Your task to perform on an android device: open app "Messages" Image 0: 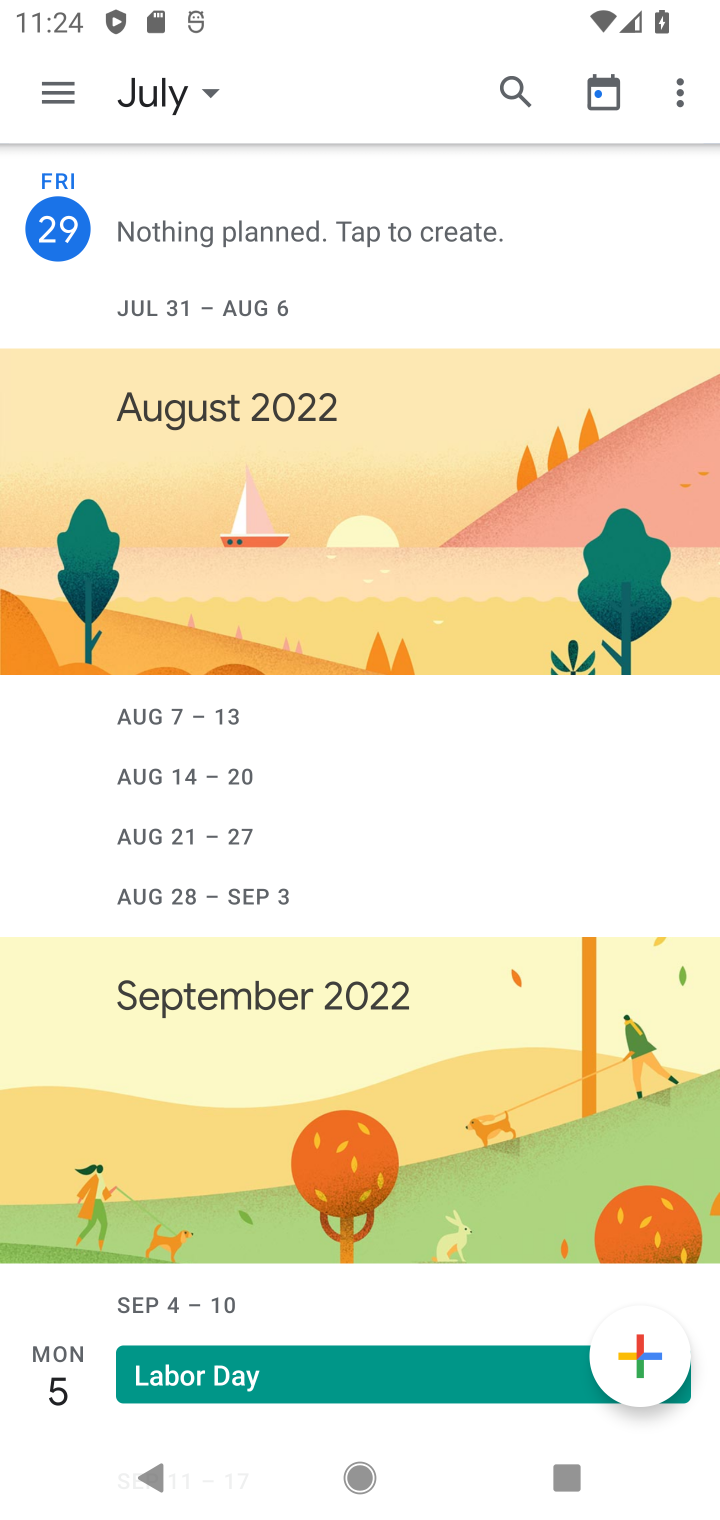
Step 0: press home button
Your task to perform on an android device: open app "Messages" Image 1: 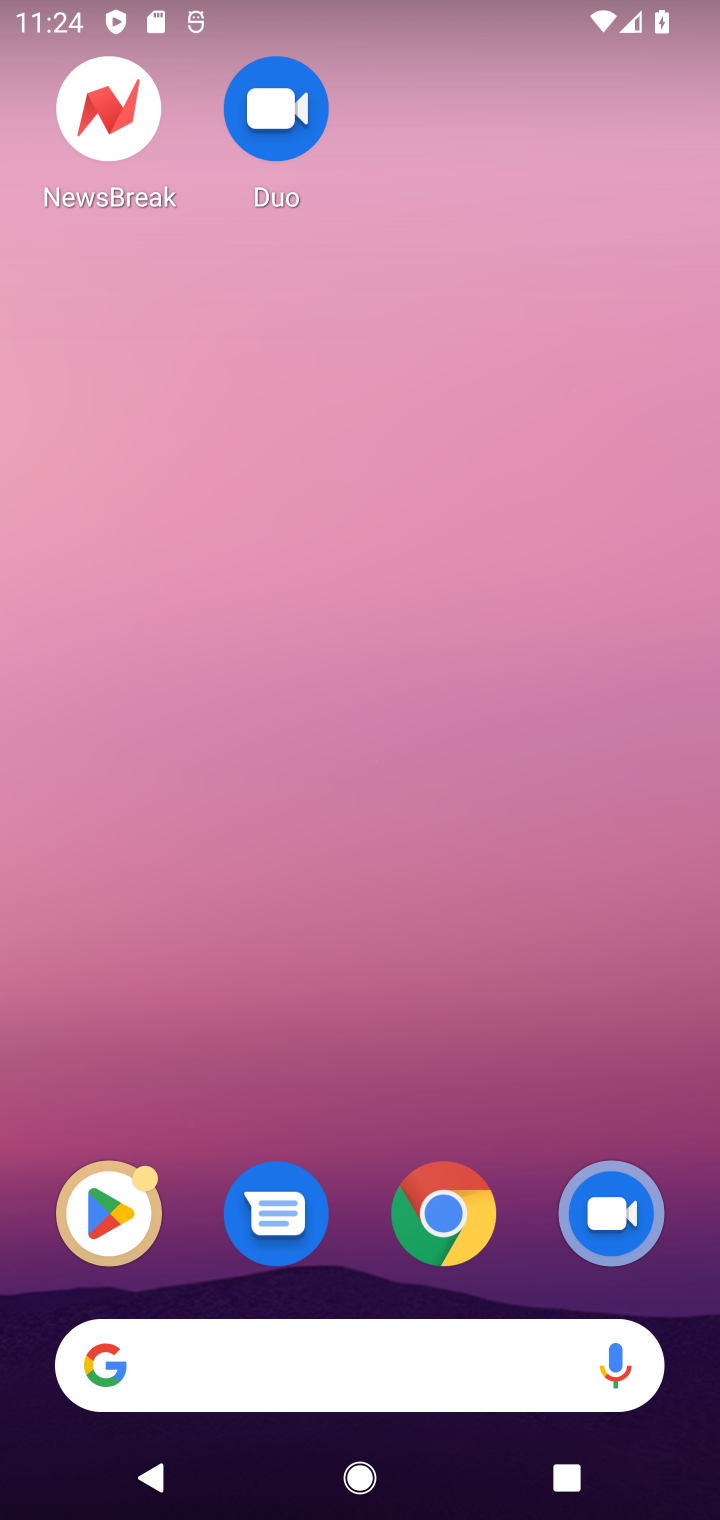
Step 1: click (267, 1211)
Your task to perform on an android device: open app "Messages" Image 2: 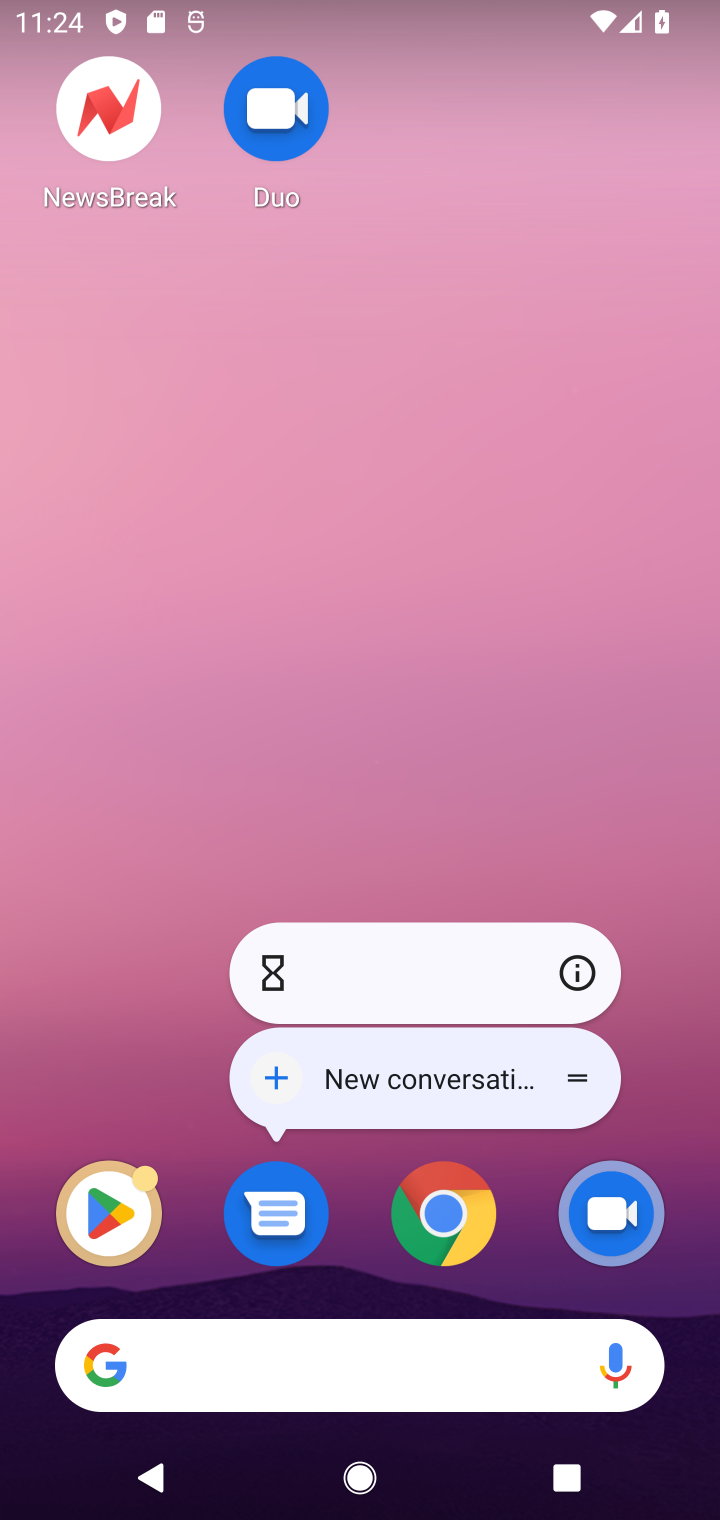
Step 2: click (267, 1211)
Your task to perform on an android device: open app "Messages" Image 3: 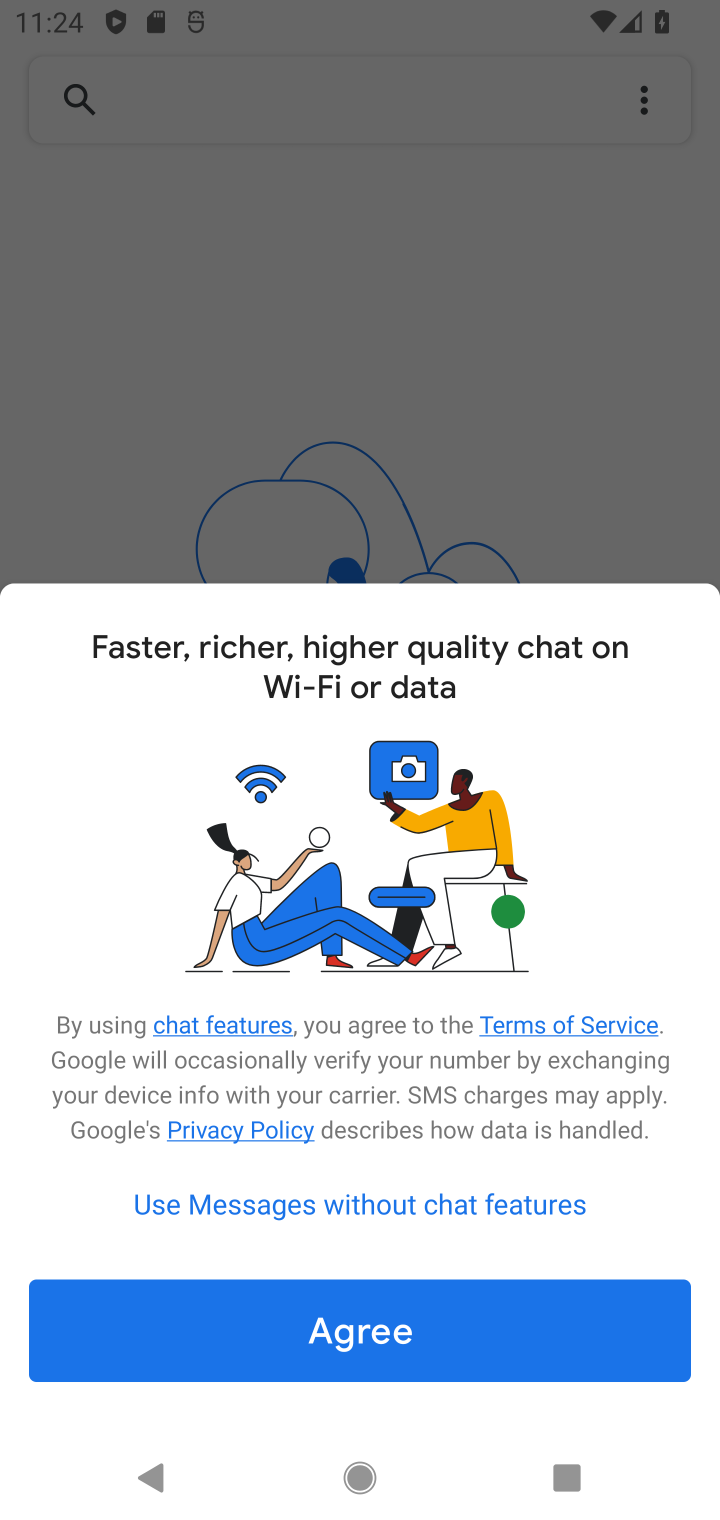
Step 3: task complete